Your task to perform on an android device: Clear the cart on walmart.com. Search for "logitech g903" on walmart.com, select the first entry, and add it to the cart. Image 0: 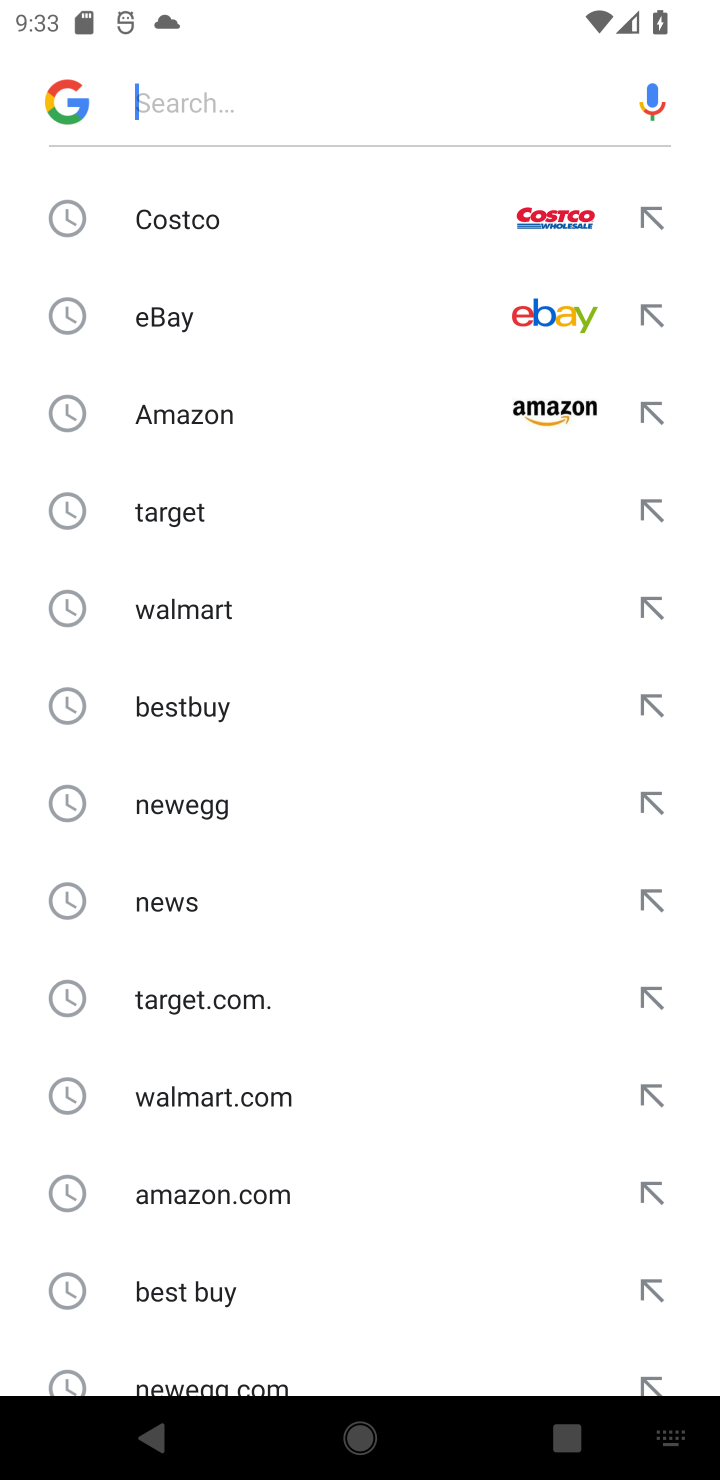
Step 0: press home button
Your task to perform on an android device: Clear the cart on walmart.com. Search for "logitech g903" on walmart.com, select the first entry, and add it to the cart. Image 1: 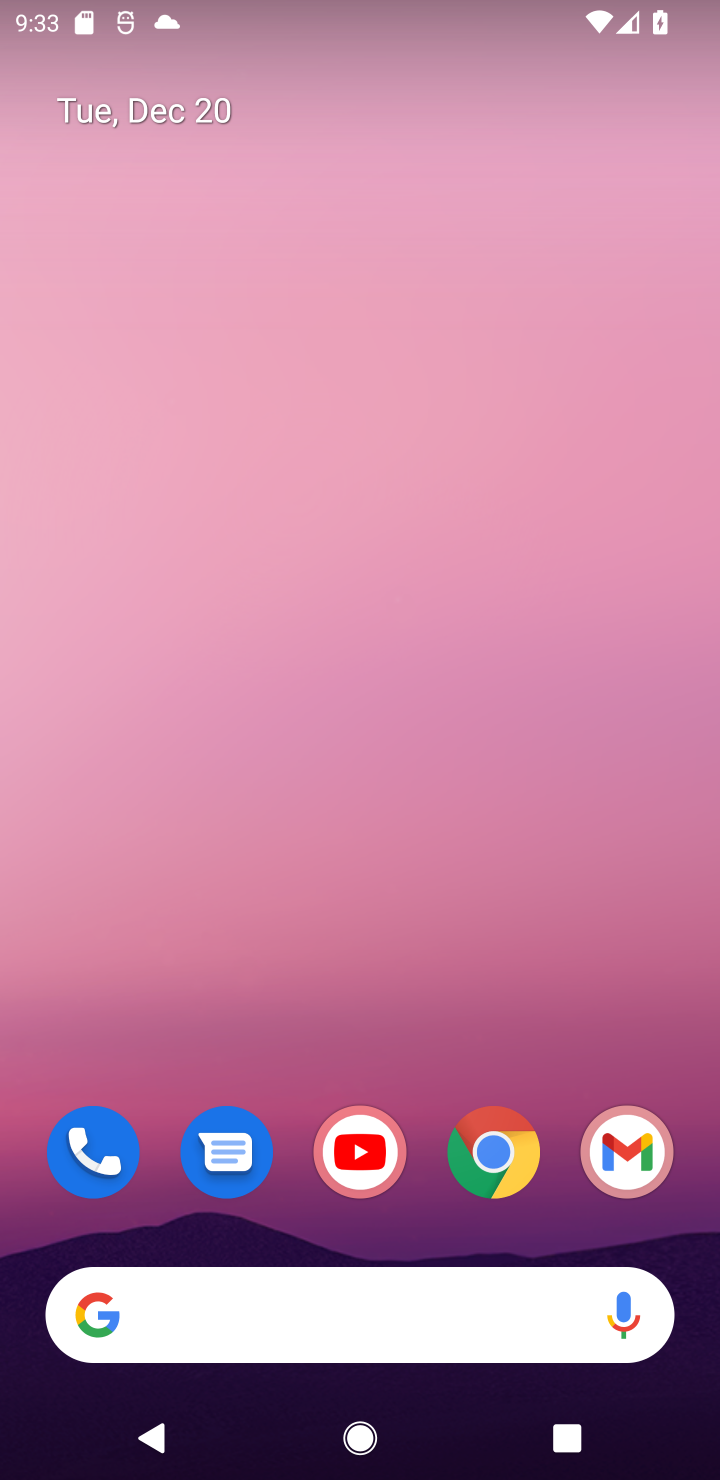
Step 1: click (484, 1182)
Your task to perform on an android device: Clear the cart on walmart.com. Search for "logitech g903" on walmart.com, select the first entry, and add it to the cart. Image 2: 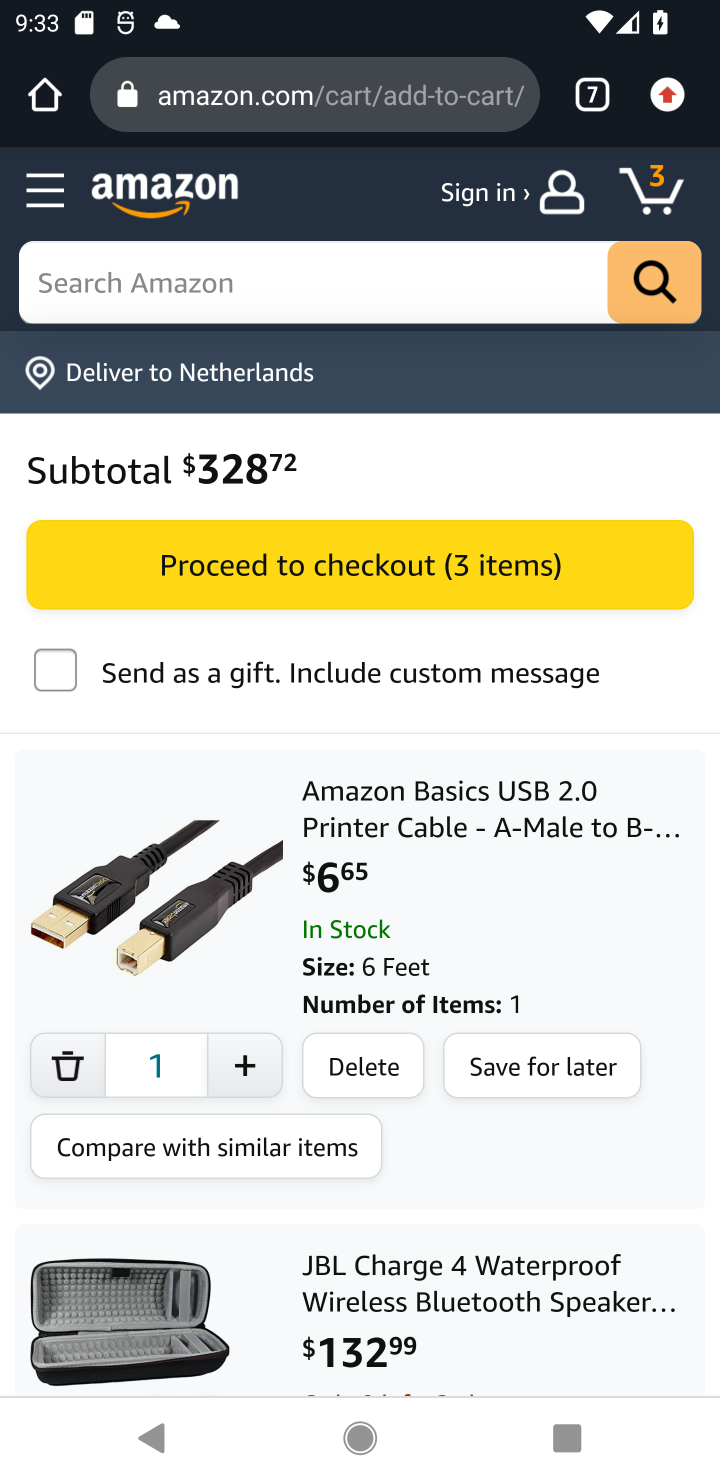
Step 2: click (593, 109)
Your task to perform on an android device: Clear the cart on walmart.com. Search for "logitech g903" on walmart.com, select the first entry, and add it to the cart. Image 3: 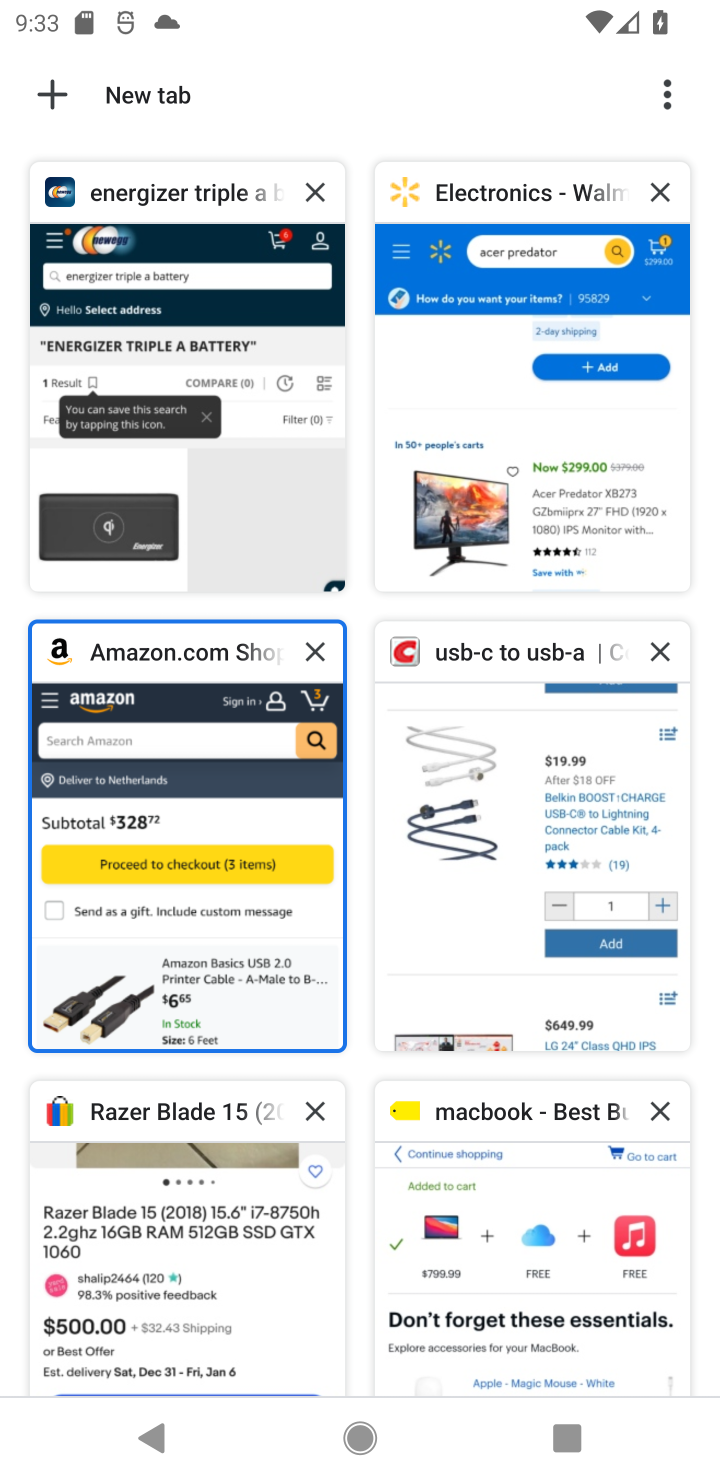
Step 3: click (498, 328)
Your task to perform on an android device: Clear the cart on walmart.com. Search for "logitech g903" on walmart.com, select the first entry, and add it to the cart. Image 4: 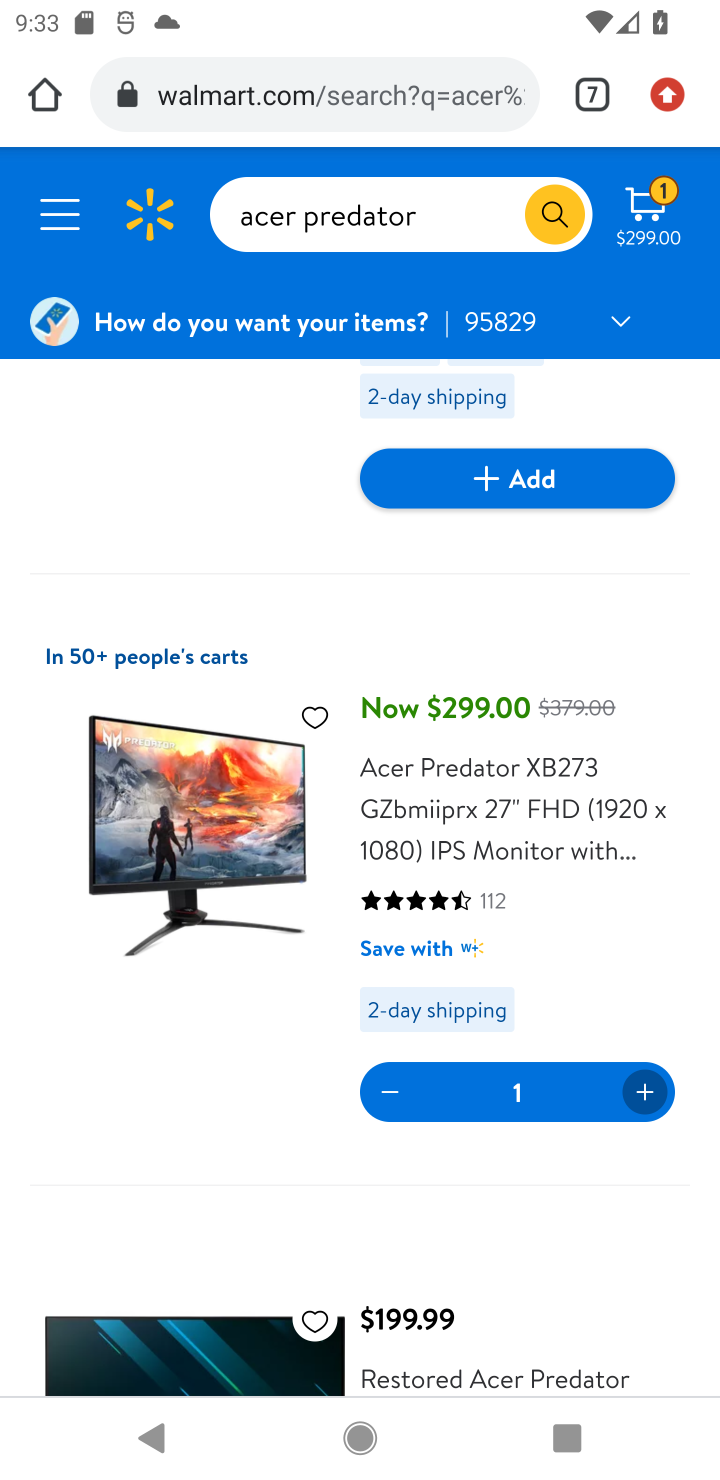
Step 4: click (466, 223)
Your task to perform on an android device: Clear the cart on walmart.com. Search for "logitech g903" on walmart.com, select the first entry, and add it to the cart. Image 5: 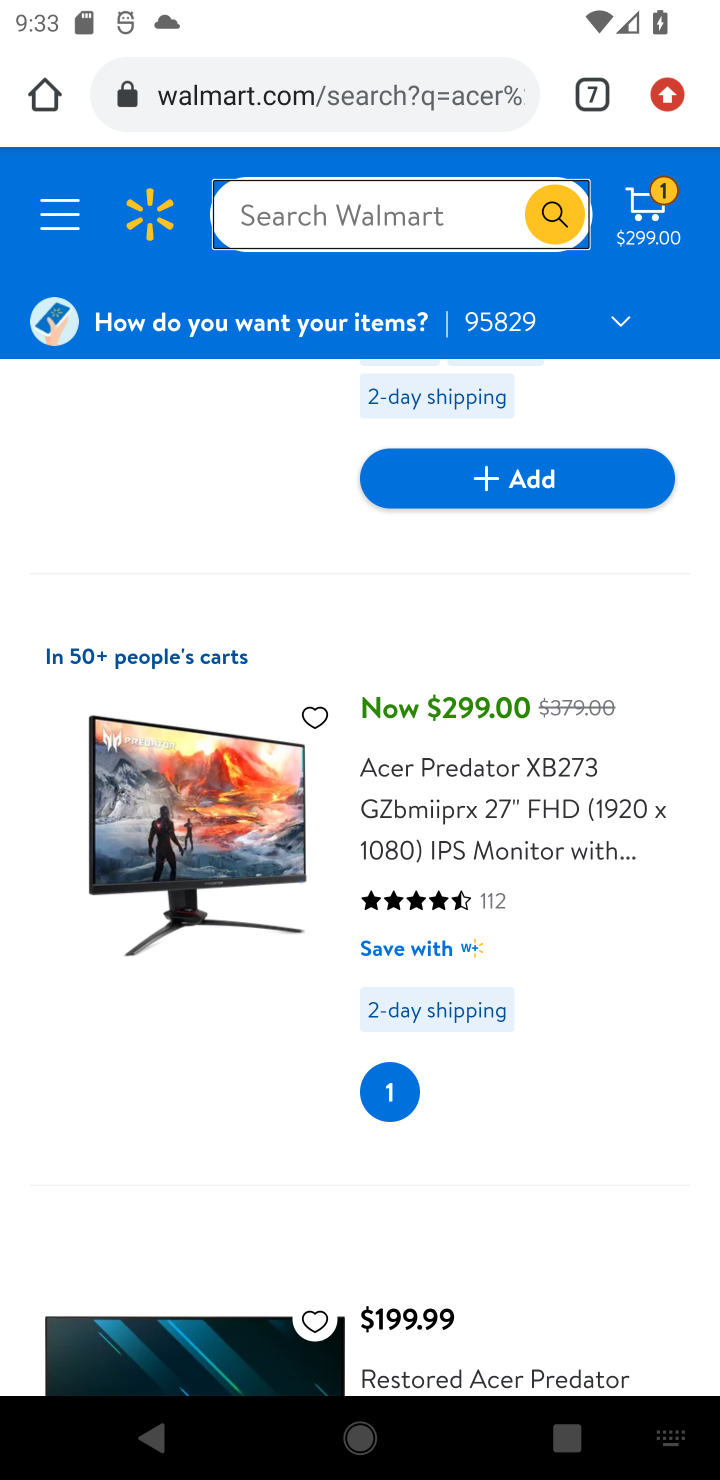
Step 5: type "logitech g903"
Your task to perform on an android device: Clear the cart on walmart.com. Search for "logitech g903" on walmart.com, select the first entry, and add it to the cart. Image 6: 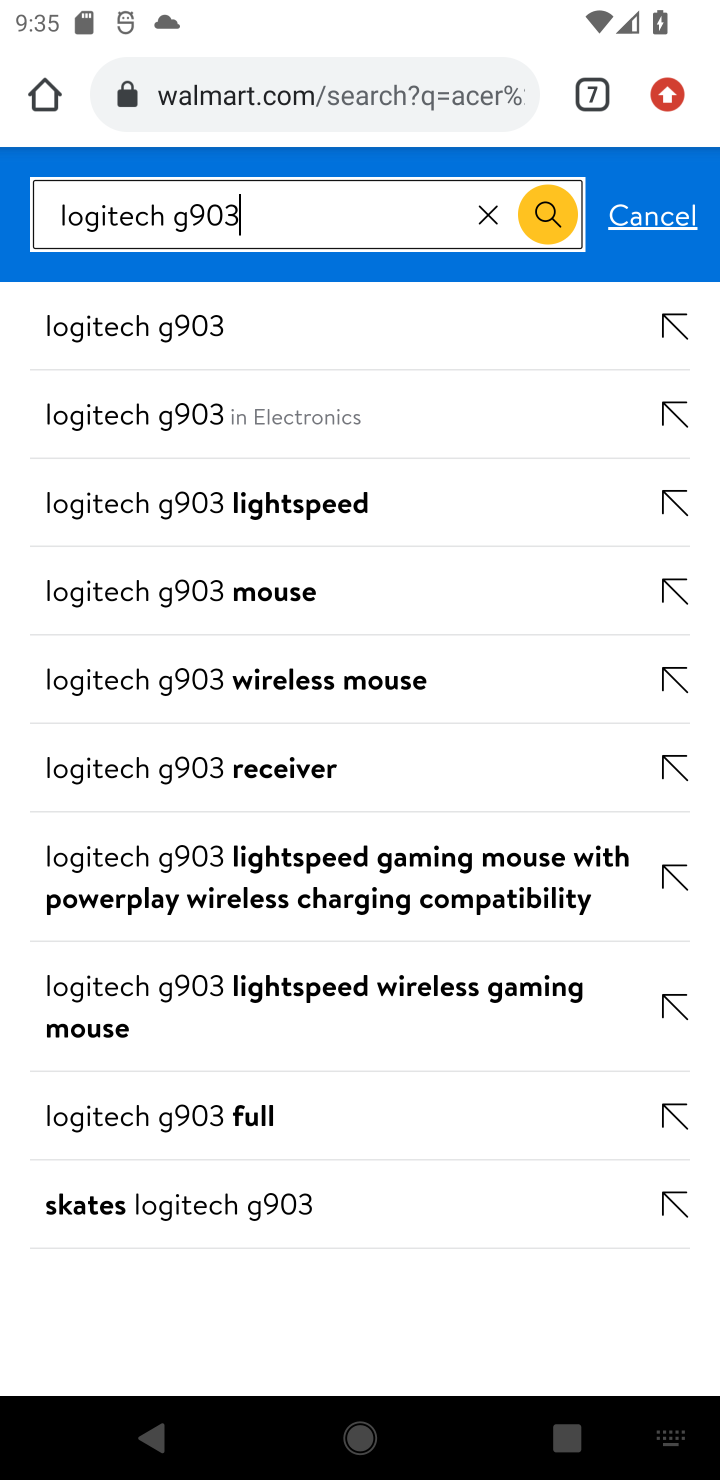
Step 6: click (212, 414)
Your task to perform on an android device: Clear the cart on walmart.com. Search for "logitech g903" on walmart.com, select the first entry, and add it to the cart. Image 7: 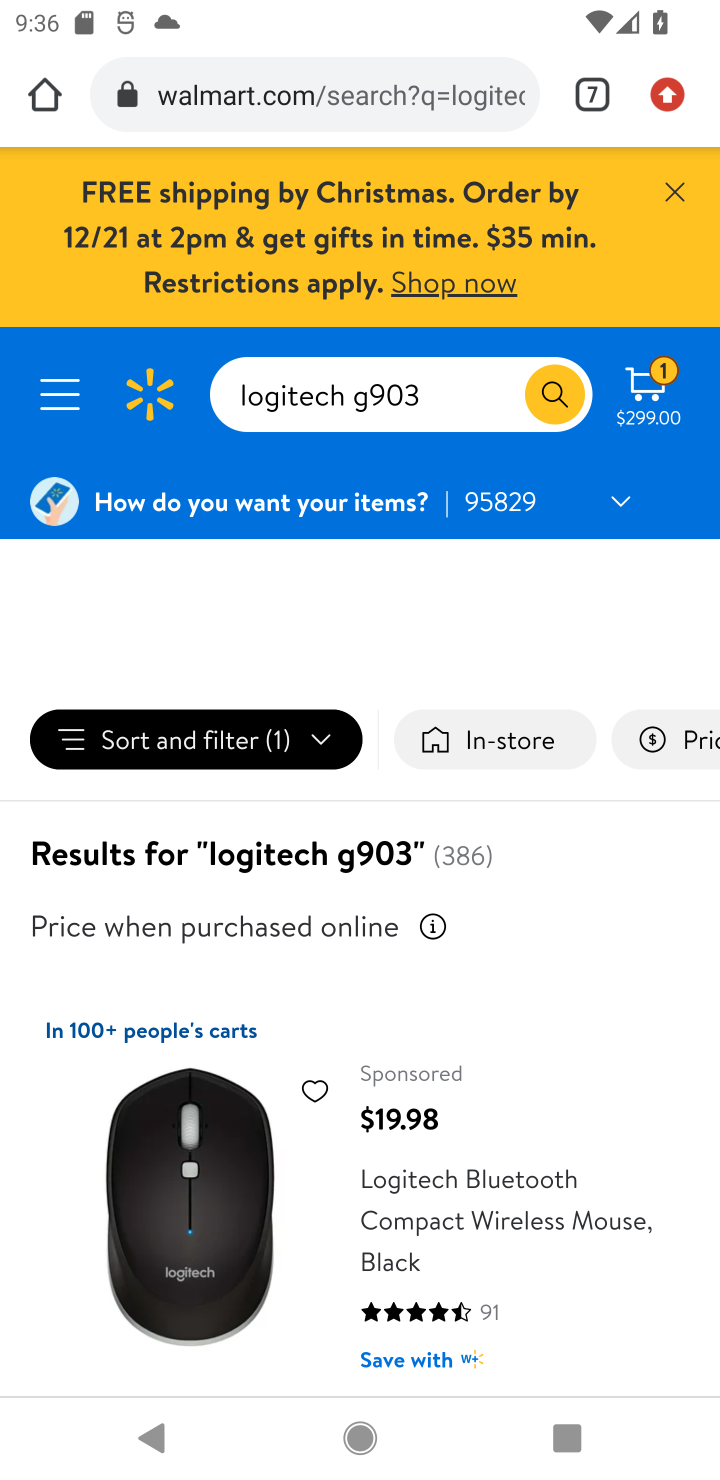
Step 7: drag from (547, 1334) to (509, 546)
Your task to perform on an android device: Clear the cart on walmart.com. Search for "logitech g903" on walmart.com, select the first entry, and add it to the cart. Image 8: 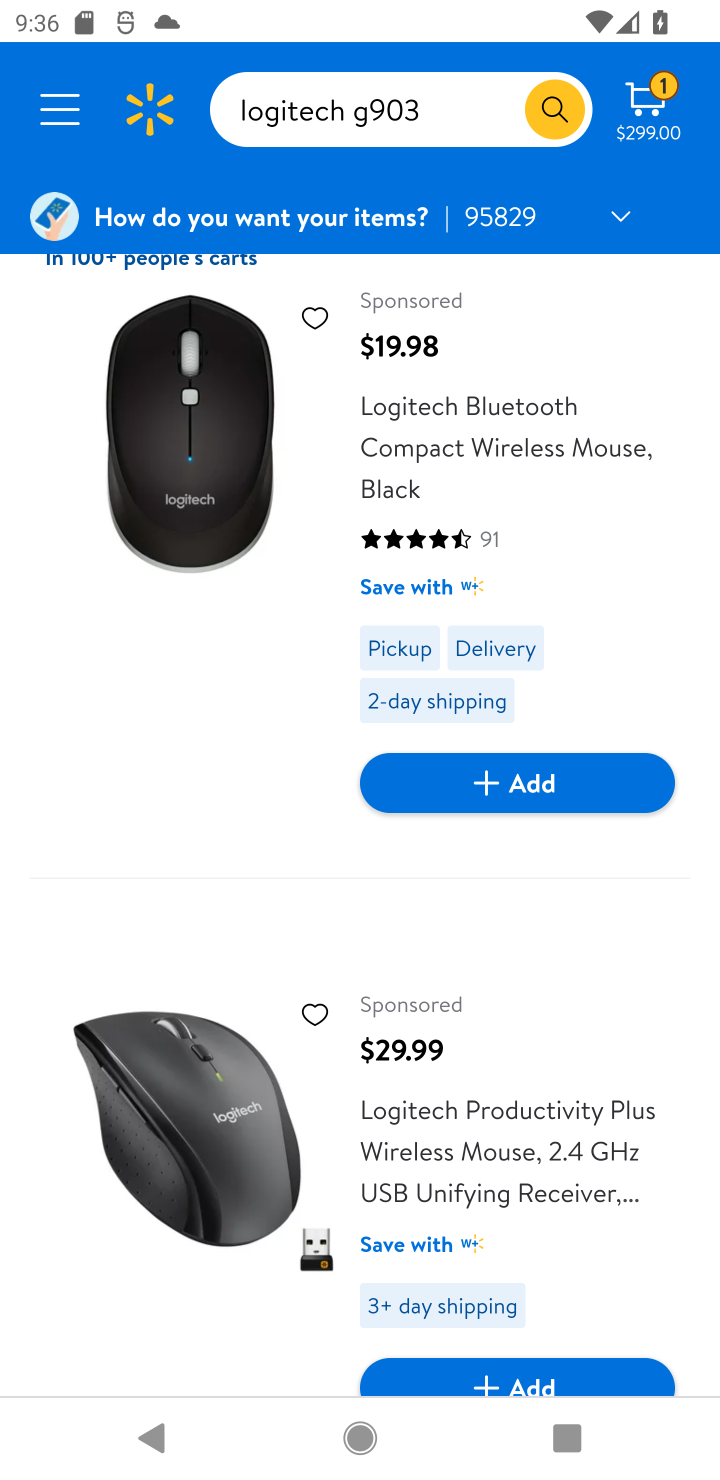
Step 8: drag from (542, 1289) to (708, 1040)
Your task to perform on an android device: Clear the cart on walmart.com. Search for "logitech g903" on walmart.com, select the first entry, and add it to the cart. Image 9: 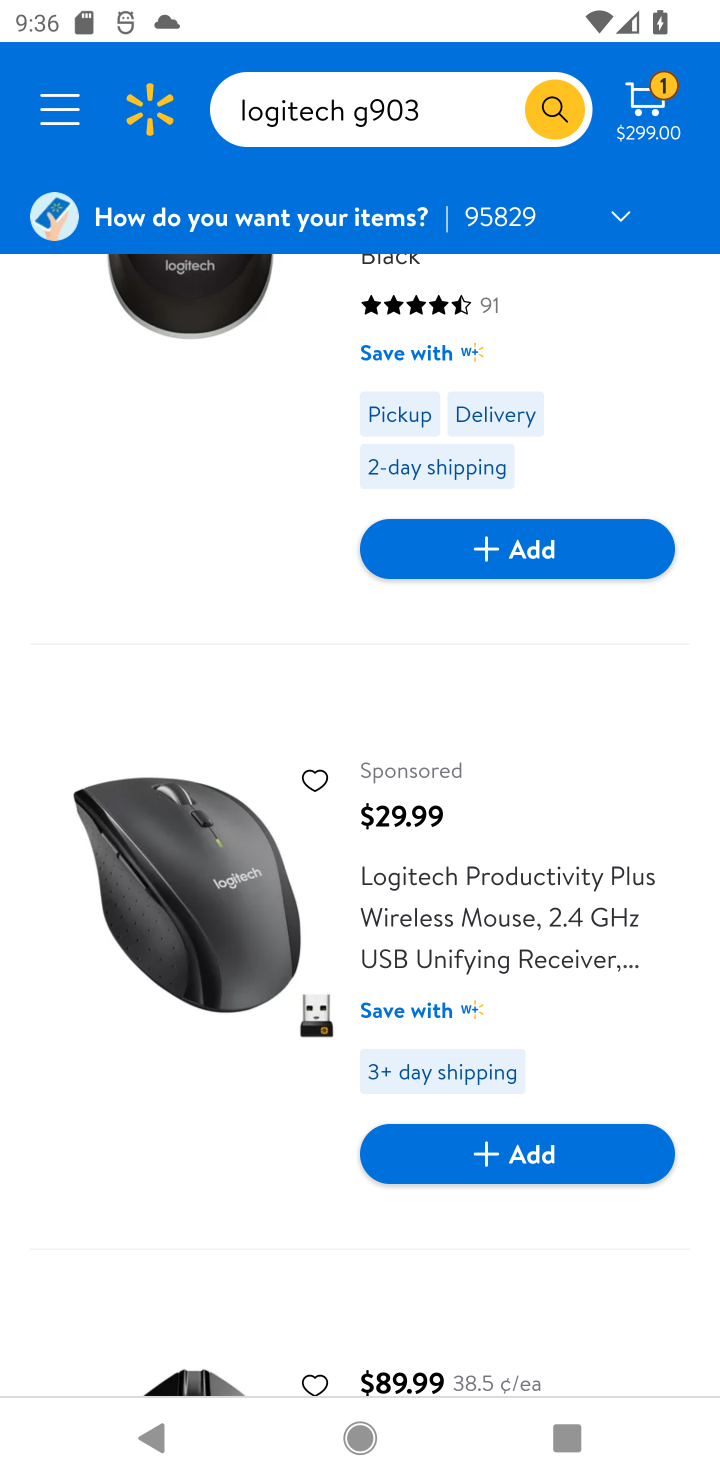
Step 9: click (544, 1140)
Your task to perform on an android device: Clear the cart on walmart.com. Search for "logitech g903" on walmart.com, select the first entry, and add it to the cart. Image 10: 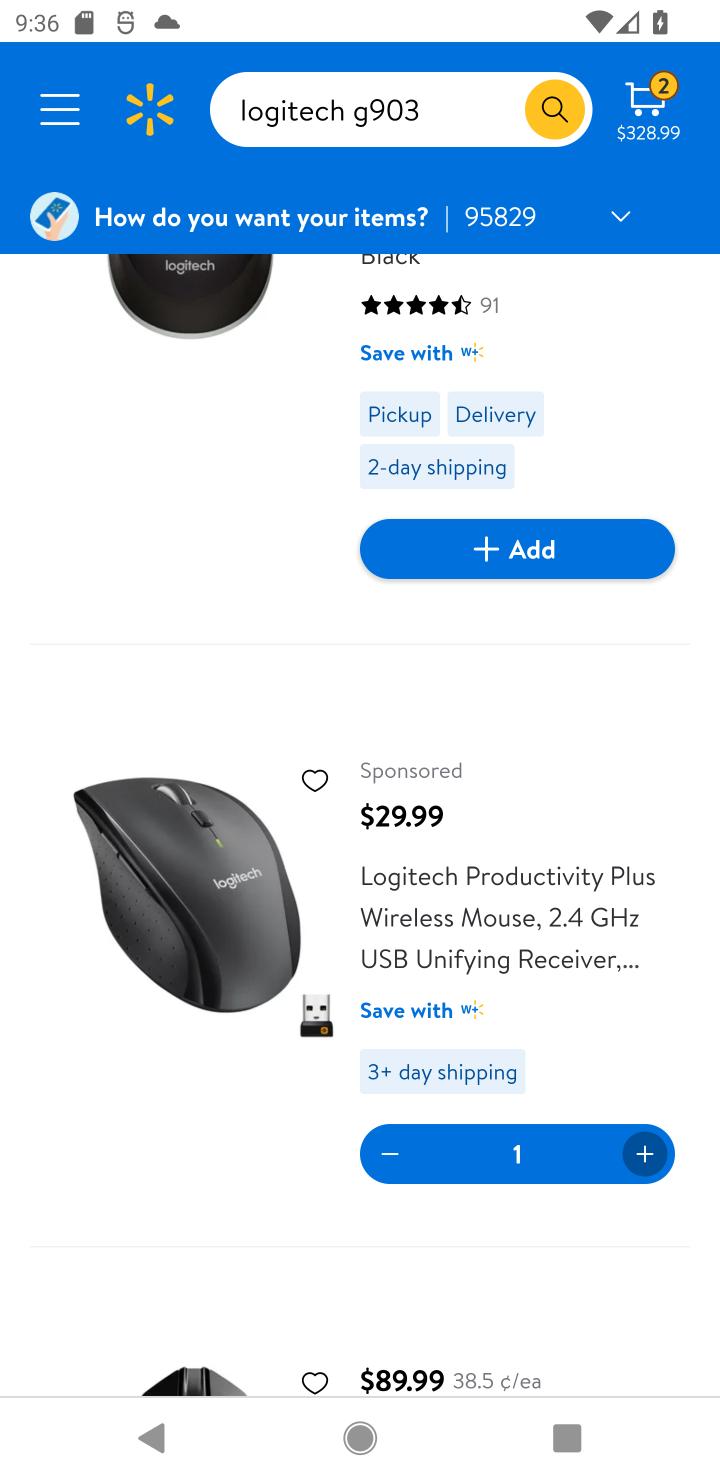
Step 10: task complete